Your task to perform on an android device: Go to internet settings Image 0: 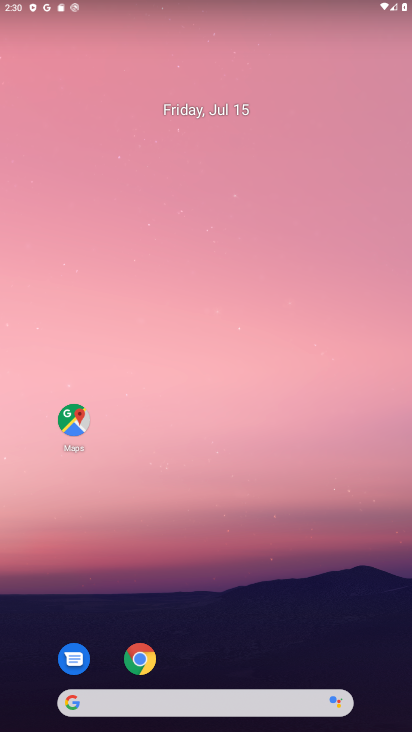
Step 0: drag from (248, 662) to (341, 190)
Your task to perform on an android device: Go to internet settings Image 1: 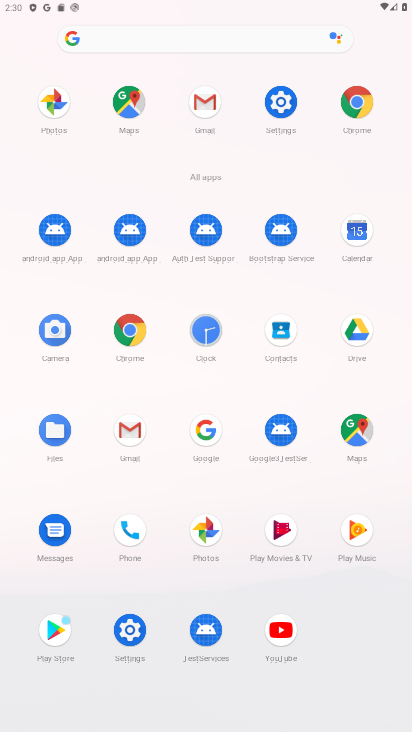
Step 1: click (129, 634)
Your task to perform on an android device: Go to internet settings Image 2: 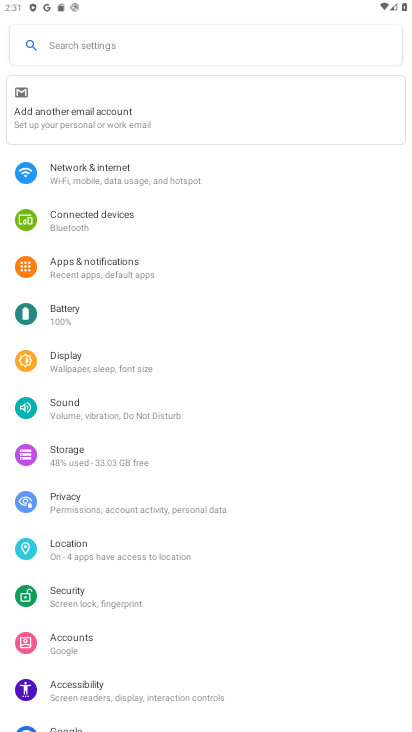
Step 2: click (194, 167)
Your task to perform on an android device: Go to internet settings Image 3: 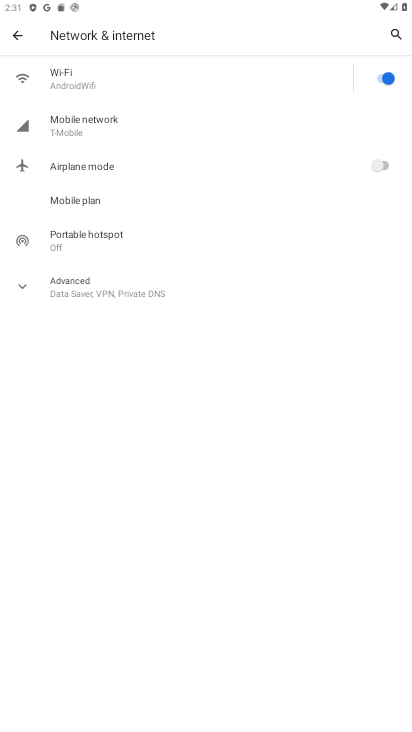
Step 3: click (135, 127)
Your task to perform on an android device: Go to internet settings Image 4: 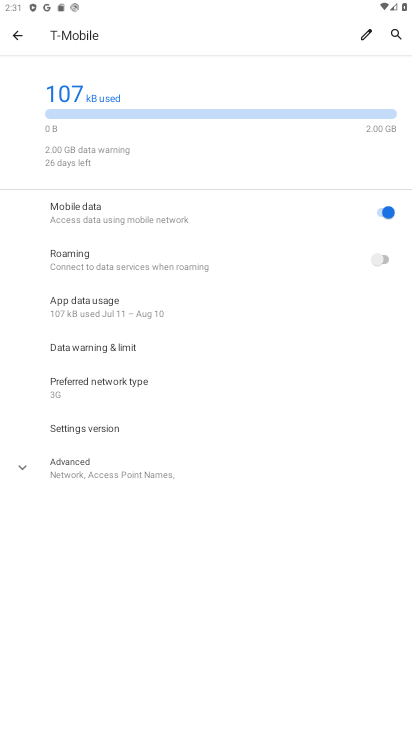
Step 4: task complete